Your task to perform on an android device: set default search engine in the chrome app Image 0: 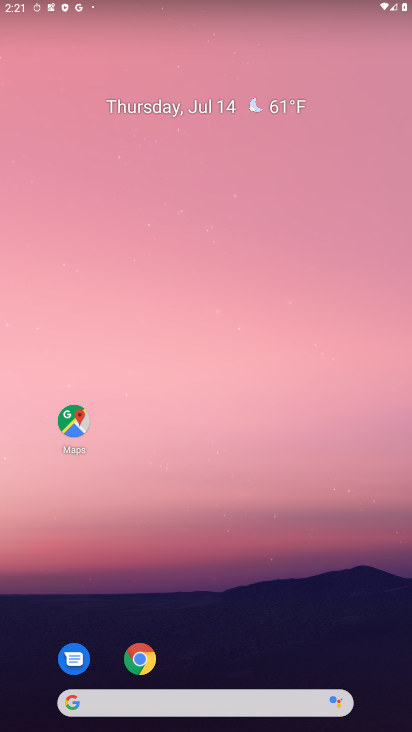
Step 0: drag from (229, 690) to (211, 154)
Your task to perform on an android device: set default search engine in the chrome app Image 1: 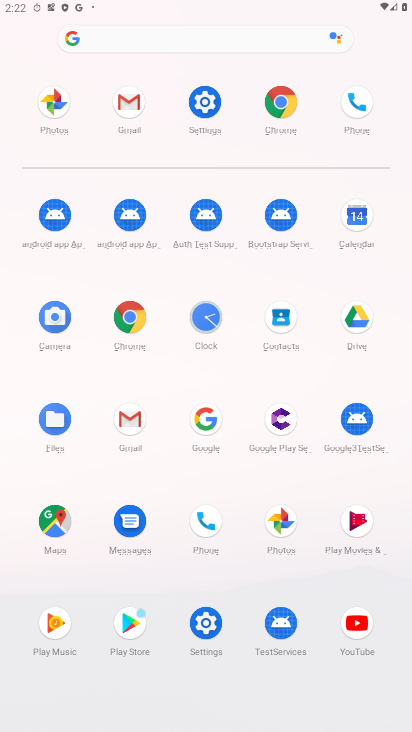
Step 1: click (113, 332)
Your task to perform on an android device: set default search engine in the chrome app Image 2: 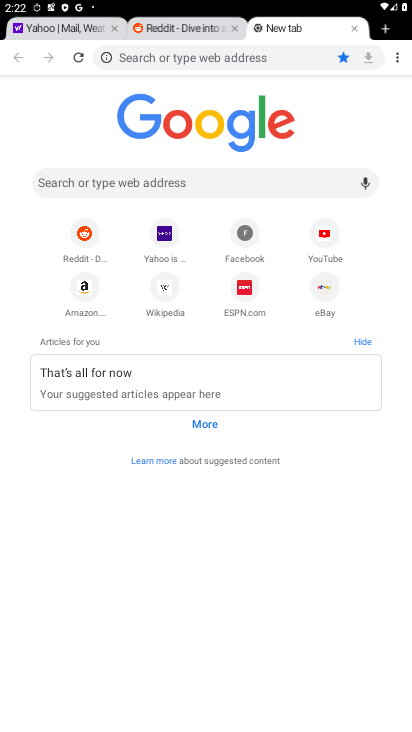
Step 2: click (394, 61)
Your task to perform on an android device: set default search engine in the chrome app Image 3: 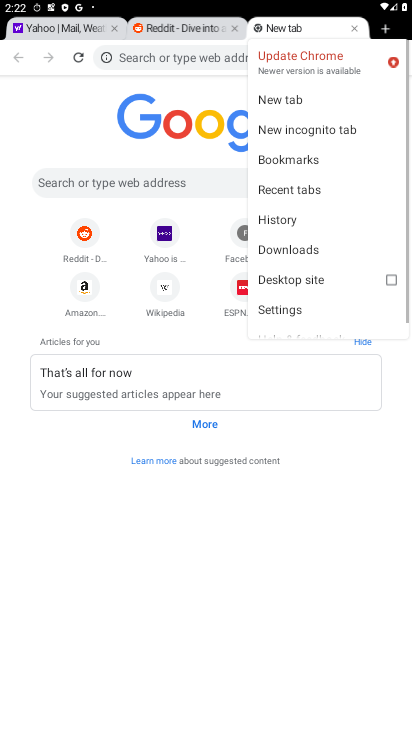
Step 3: click (283, 302)
Your task to perform on an android device: set default search engine in the chrome app Image 4: 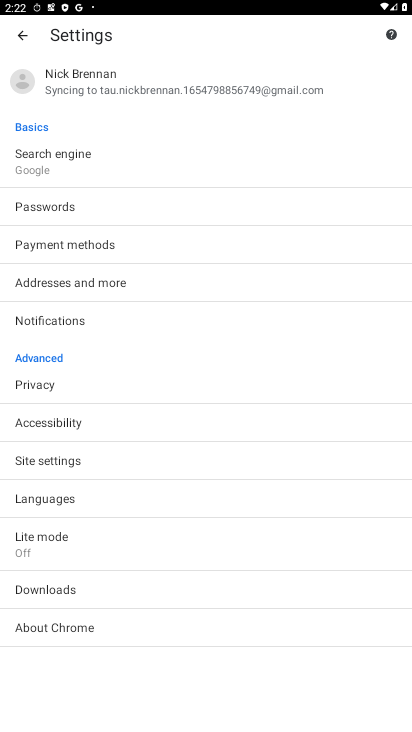
Step 4: click (42, 171)
Your task to perform on an android device: set default search engine in the chrome app Image 5: 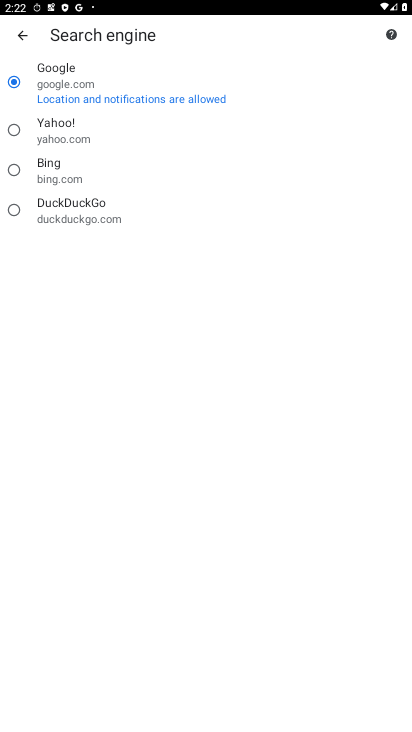
Step 5: click (29, 85)
Your task to perform on an android device: set default search engine in the chrome app Image 6: 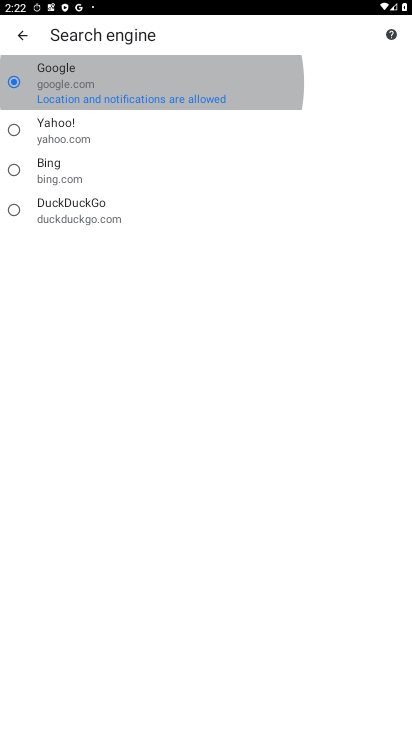
Step 6: task complete